Your task to perform on an android device: Go to Amazon Image 0: 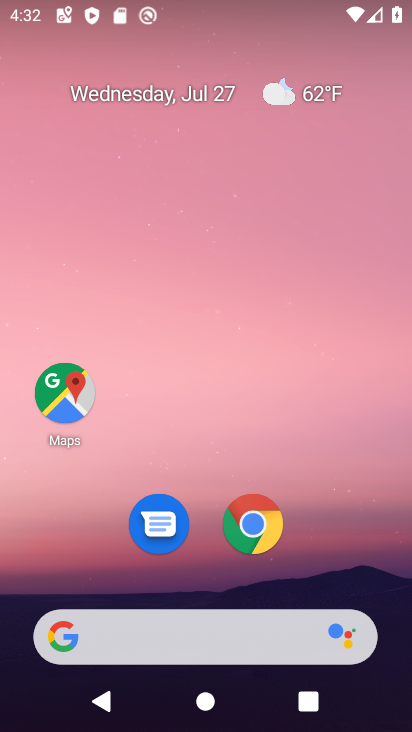
Step 0: drag from (335, 515) to (320, 30)
Your task to perform on an android device: Go to Amazon Image 1: 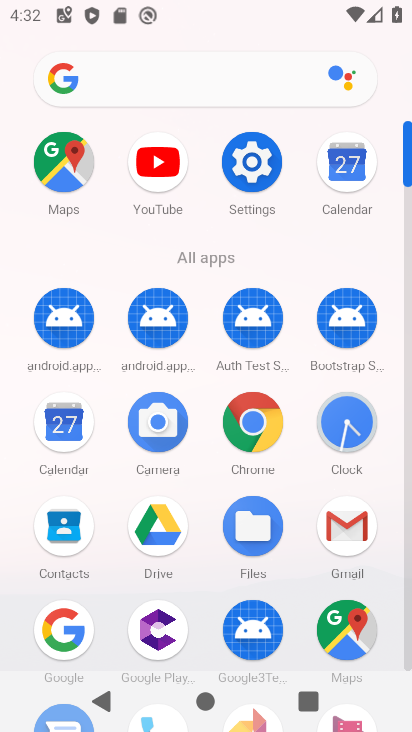
Step 1: click (253, 426)
Your task to perform on an android device: Go to Amazon Image 2: 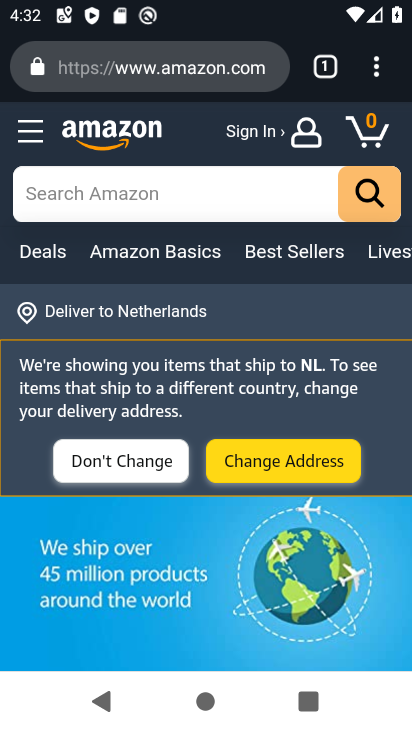
Step 2: task complete